Your task to perform on an android device: set the stopwatch Image 0: 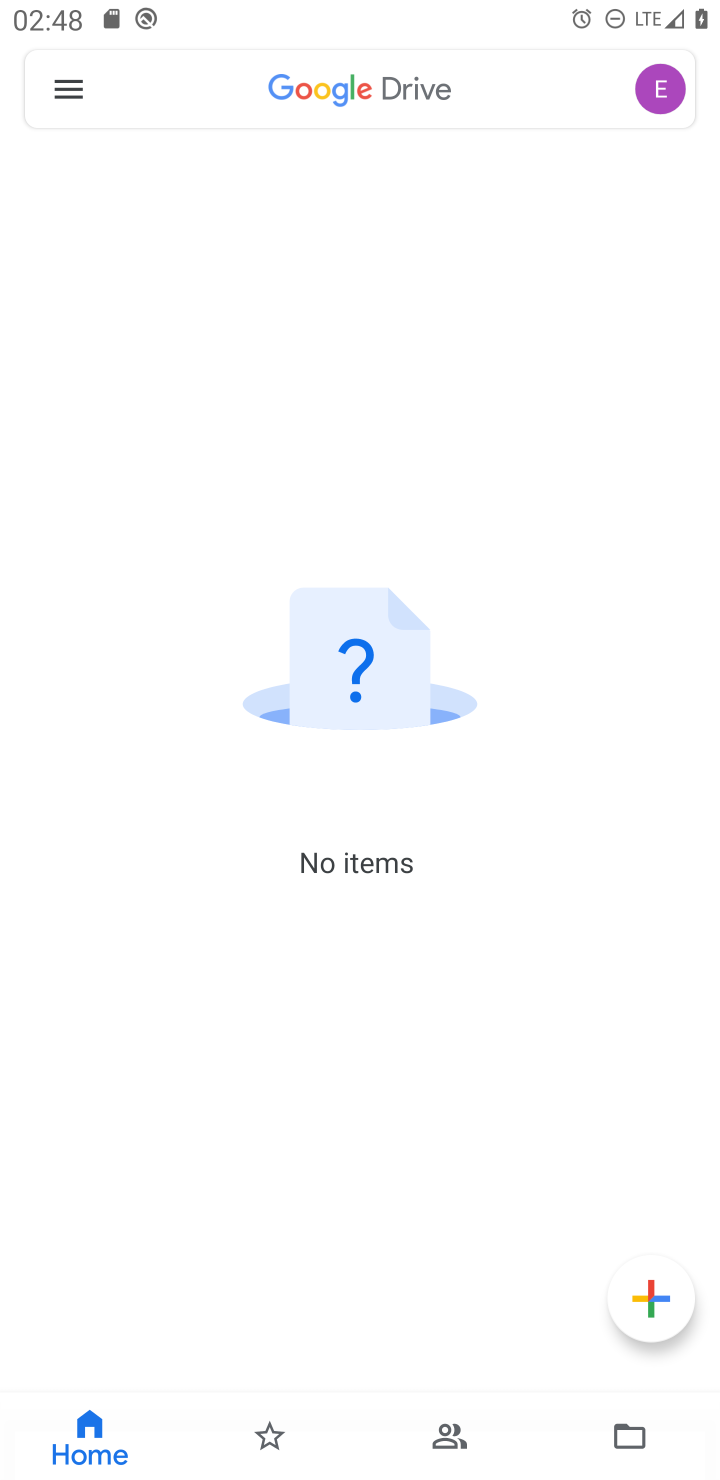
Step 0: press home button
Your task to perform on an android device: set the stopwatch Image 1: 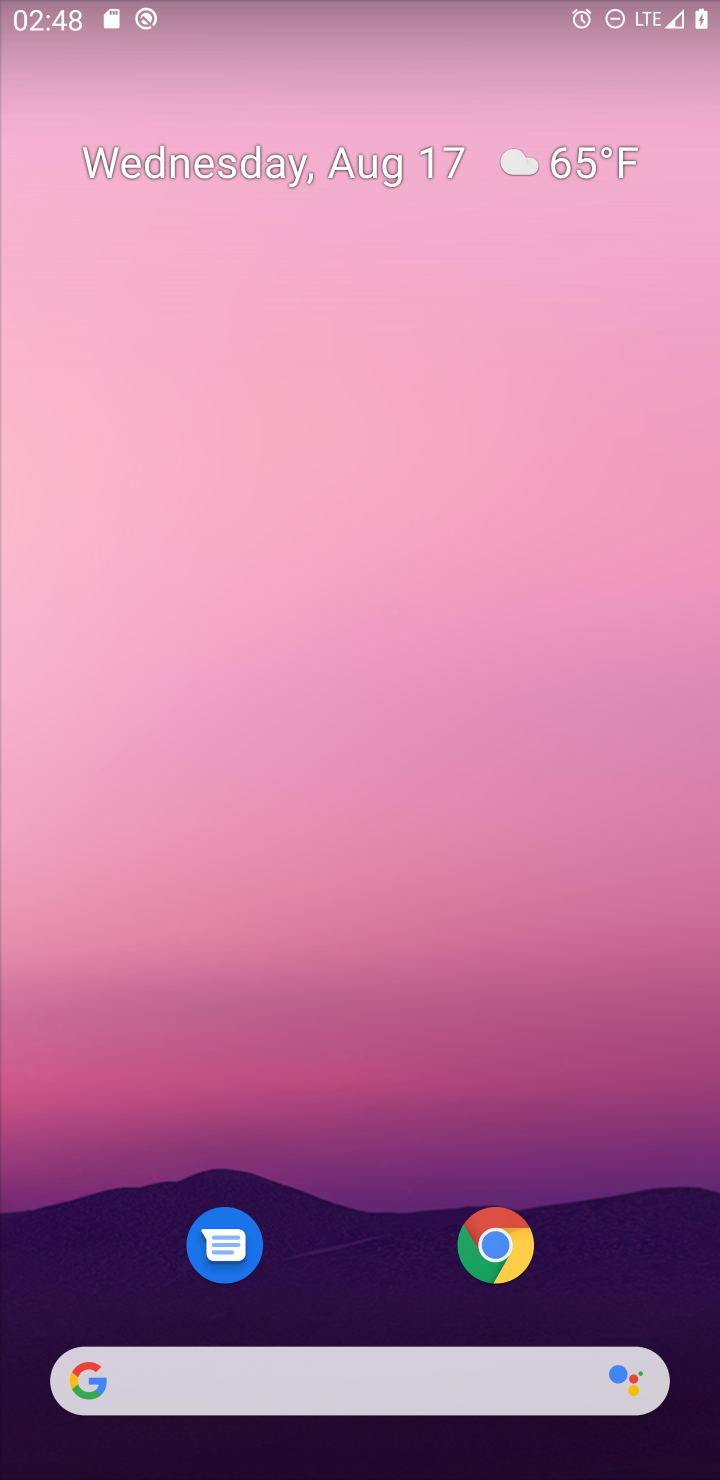
Step 1: drag from (350, 930) to (247, 225)
Your task to perform on an android device: set the stopwatch Image 2: 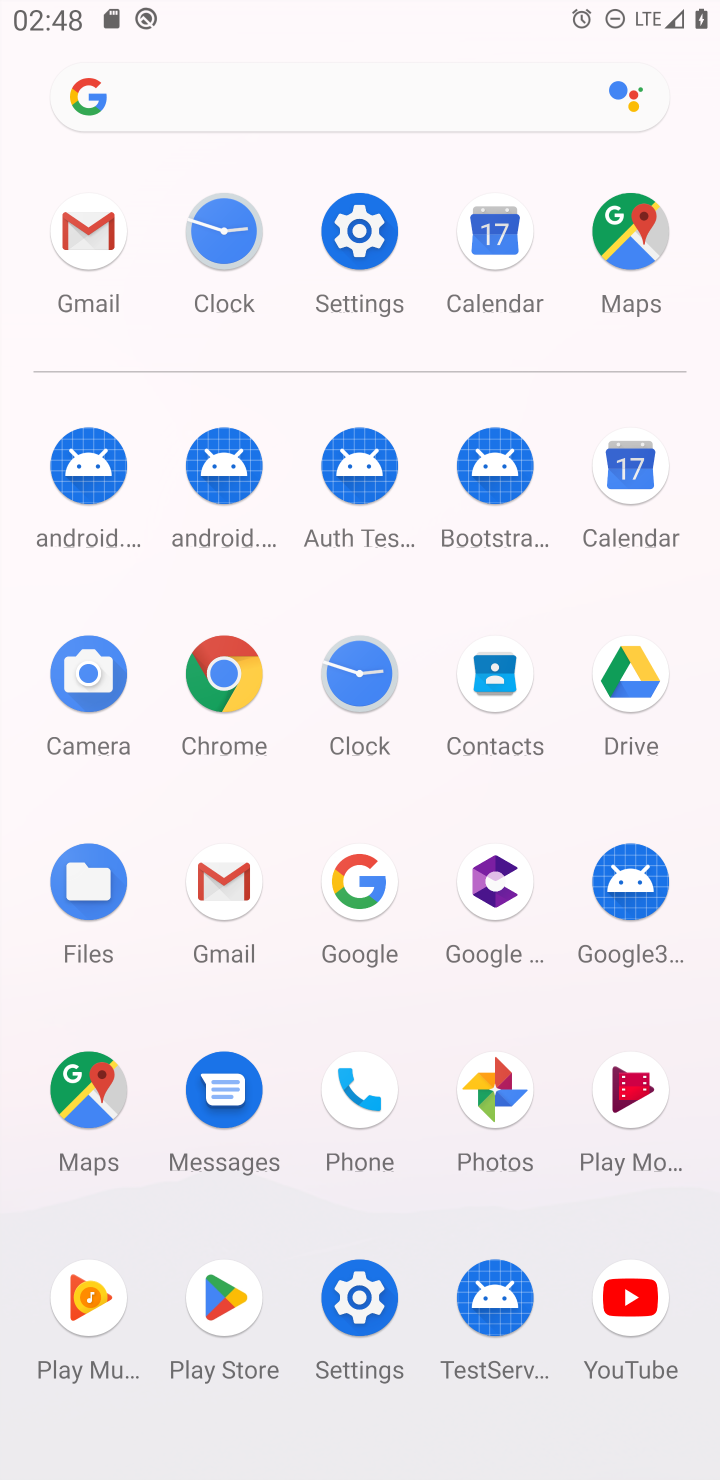
Step 2: click (367, 680)
Your task to perform on an android device: set the stopwatch Image 3: 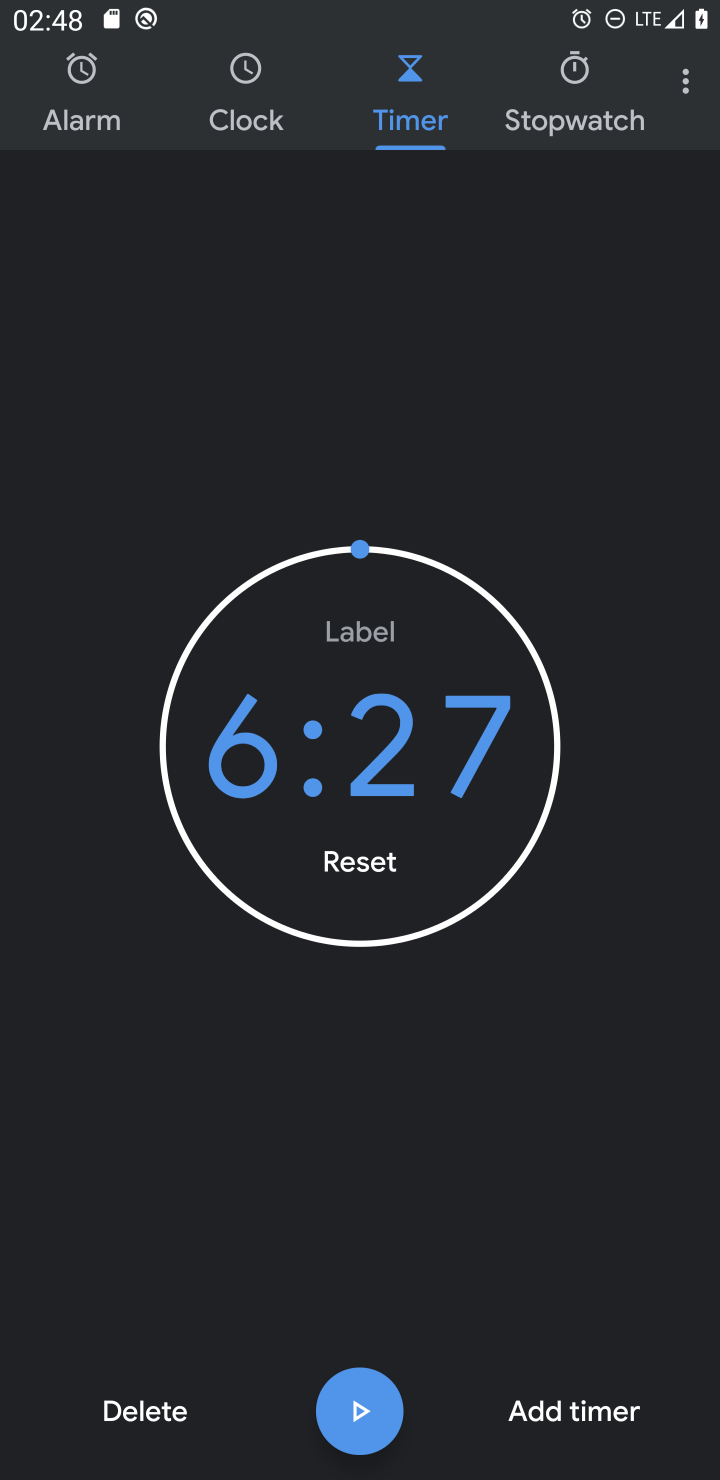
Step 3: click (554, 74)
Your task to perform on an android device: set the stopwatch Image 4: 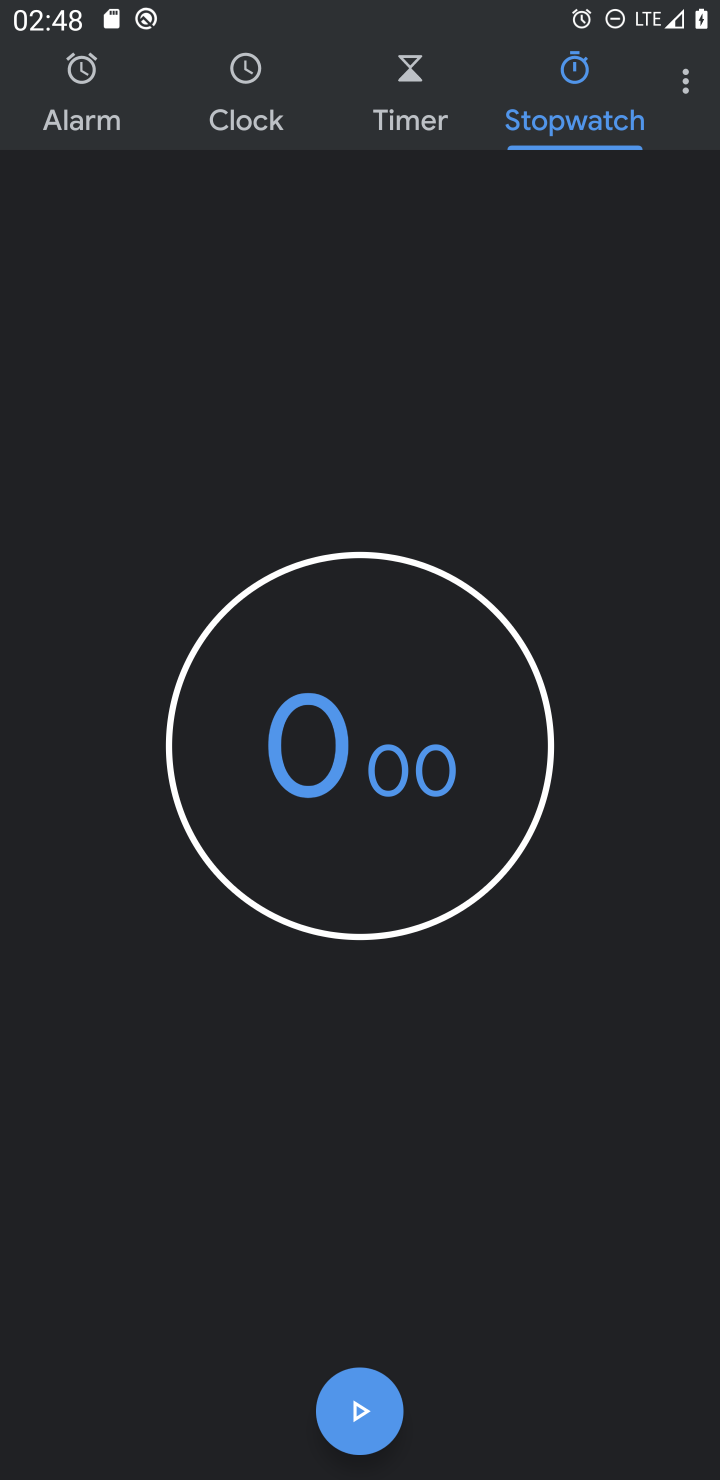
Step 4: task complete